Your task to perform on an android device: toggle wifi Image 0: 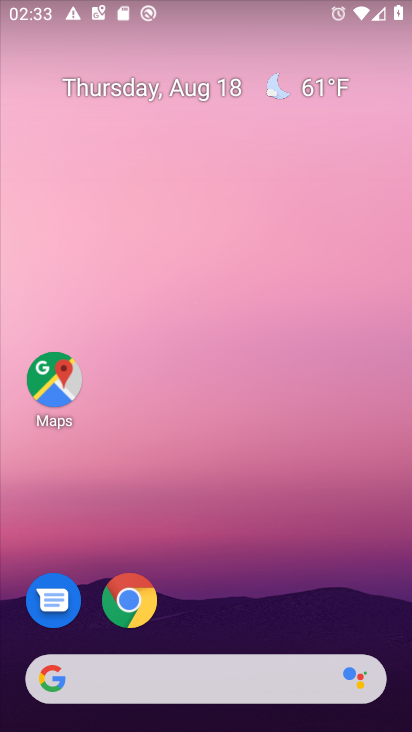
Step 0: press home button
Your task to perform on an android device: toggle wifi Image 1: 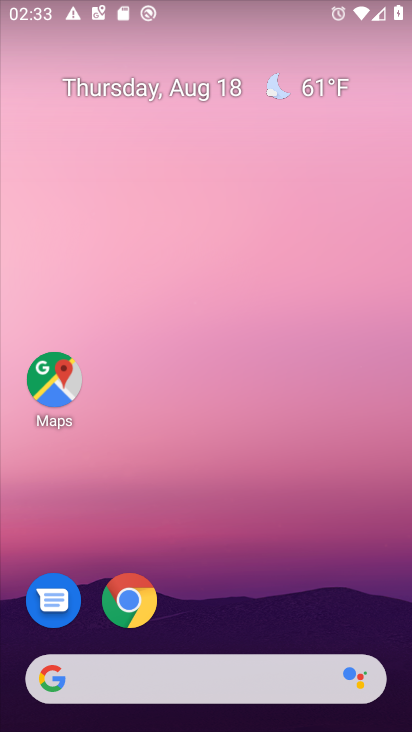
Step 1: click (382, 322)
Your task to perform on an android device: toggle wifi Image 2: 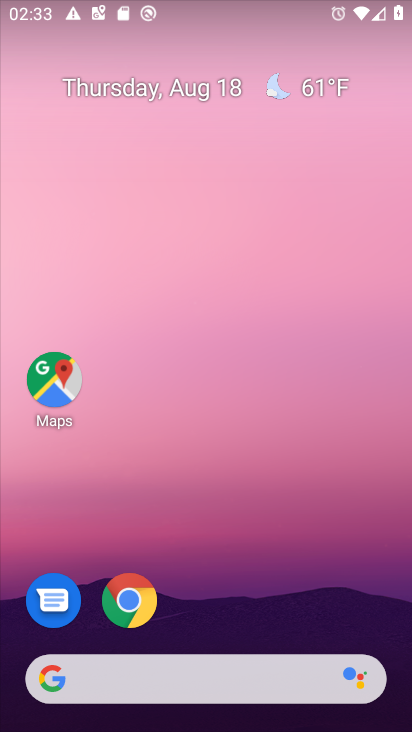
Step 2: drag from (291, 605) to (291, 105)
Your task to perform on an android device: toggle wifi Image 3: 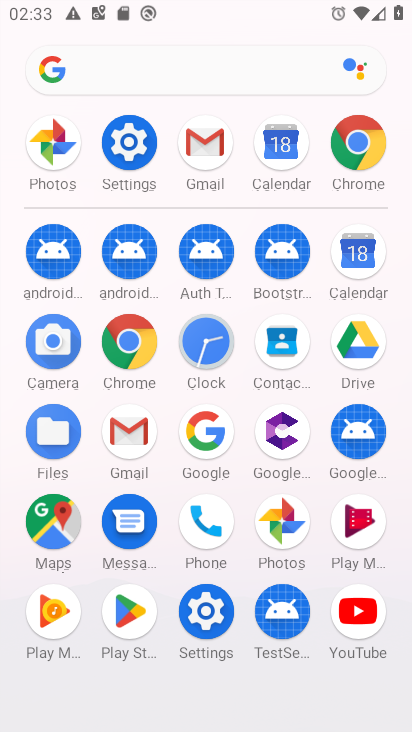
Step 3: click (137, 147)
Your task to perform on an android device: toggle wifi Image 4: 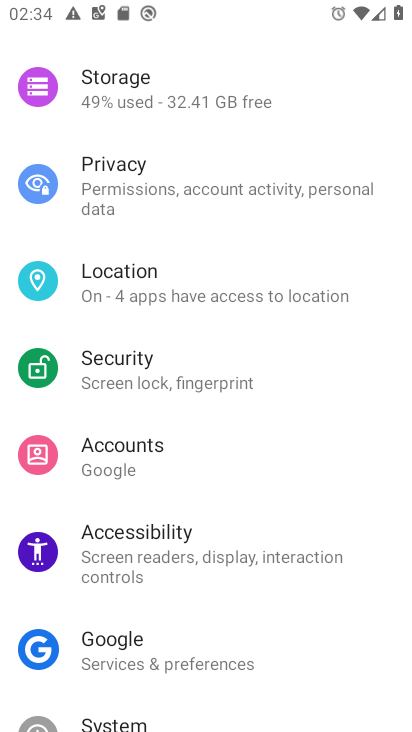
Step 4: drag from (233, 75) to (223, 334)
Your task to perform on an android device: toggle wifi Image 5: 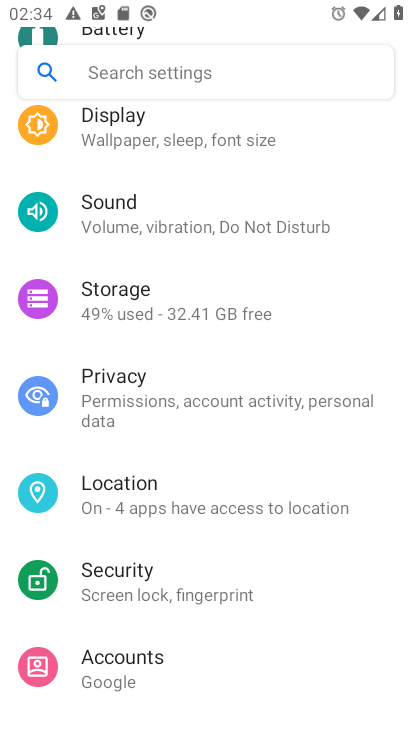
Step 5: drag from (239, 117) to (233, 487)
Your task to perform on an android device: toggle wifi Image 6: 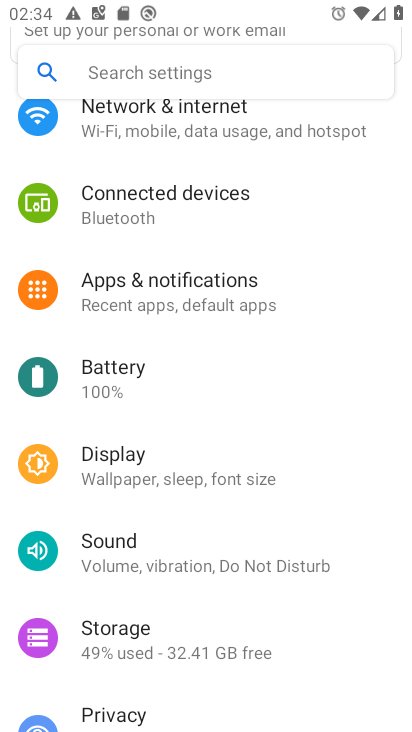
Step 6: click (202, 118)
Your task to perform on an android device: toggle wifi Image 7: 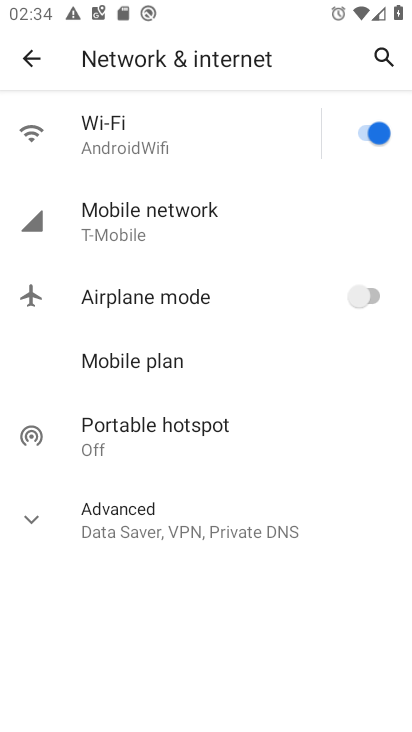
Step 7: task complete